Your task to perform on an android device: add a label to a message in the gmail app Image 0: 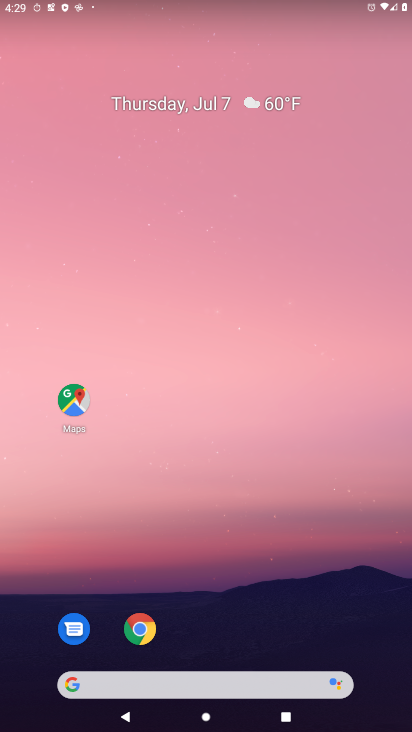
Step 0: drag from (168, 72) to (167, 308)
Your task to perform on an android device: add a label to a message in the gmail app Image 1: 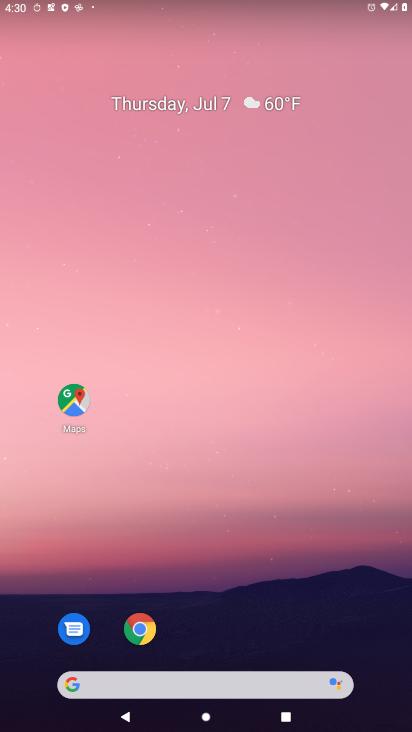
Step 1: drag from (213, 633) to (185, 215)
Your task to perform on an android device: add a label to a message in the gmail app Image 2: 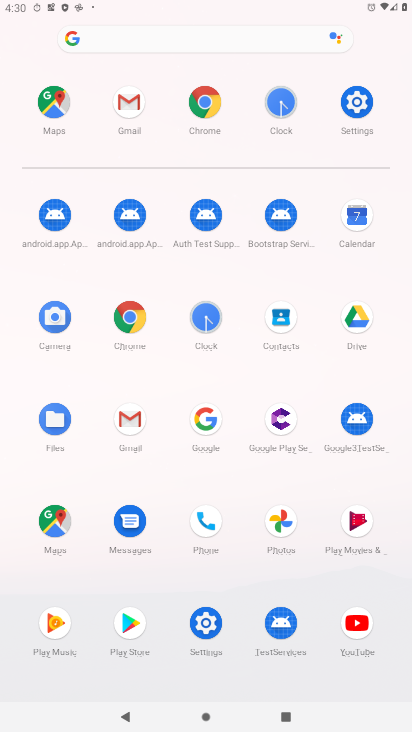
Step 2: click (127, 424)
Your task to perform on an android device: add a label to a message in the gmail app Image 3: 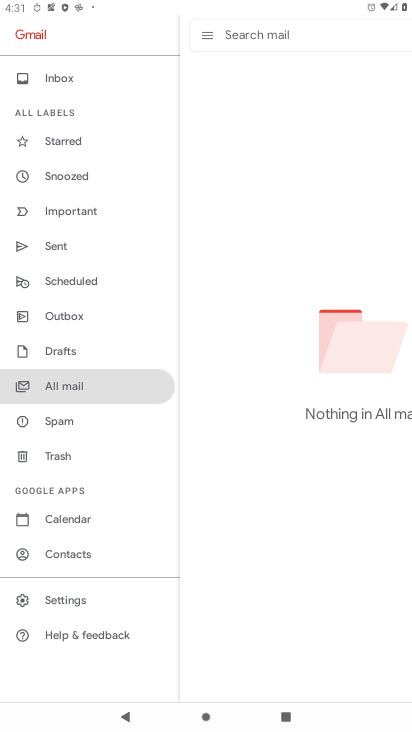
Step 3: task complete